Your task to perform on an android device: visit the assistant section in the google photos Image 0: 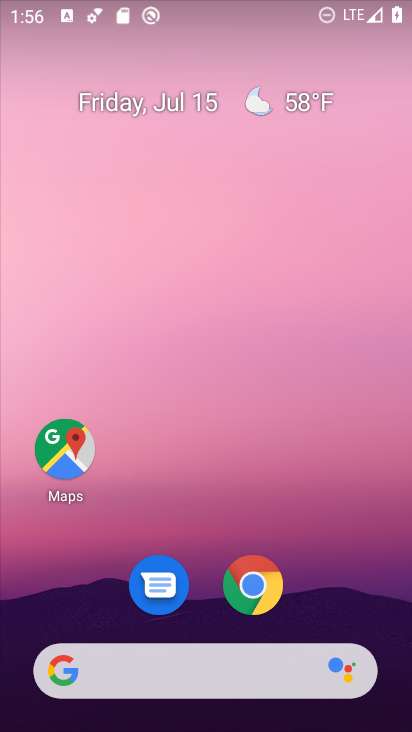
Step 0: drag from (246, 502) to (284, 4)
Your task to perform on an android device: visit the assistant section in the google photos Image 1: 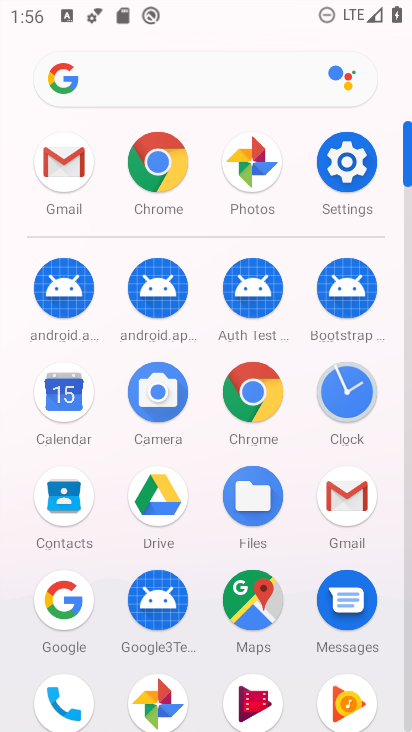
Step 1: click (252, 155)
Your task to perform on an android device: visit the assistant section in the google photos Image 2: 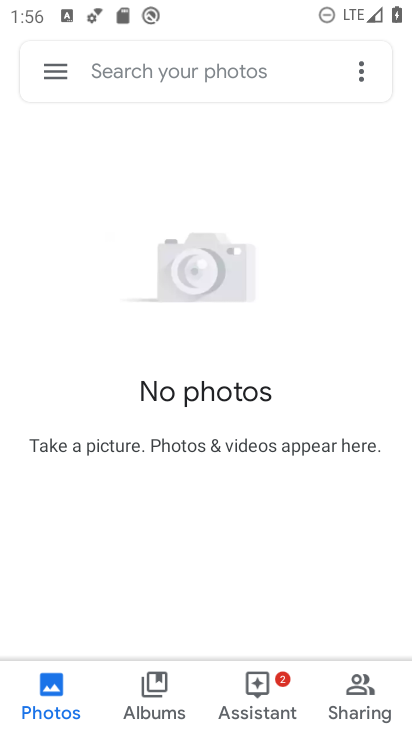
Step 2: click (280, 694)
Your task to perform on an android device: visit the assistant section in the google photos Image 3: 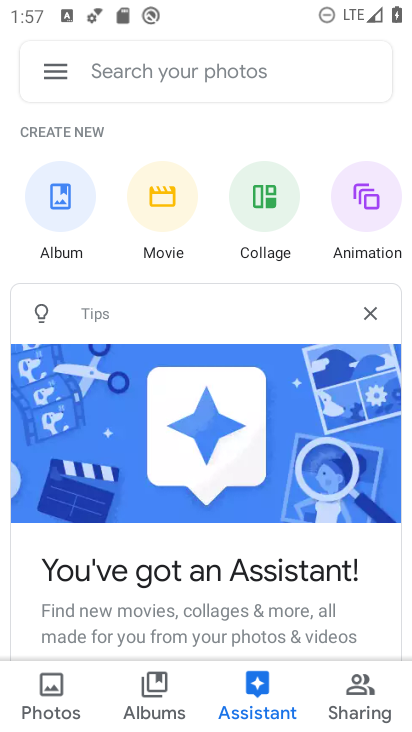
Step 3: task complete